Your task to perform on an android device: check android version Image 0: 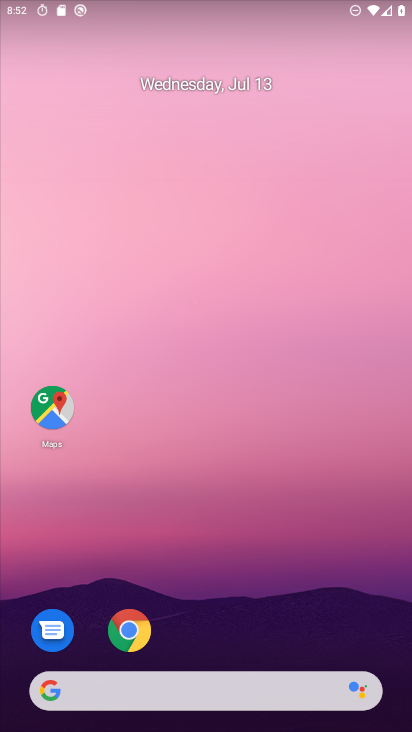
Step 0: drag from (360, 641) to (181, 8)
Your task to perform on an android device: check android version Image 1: 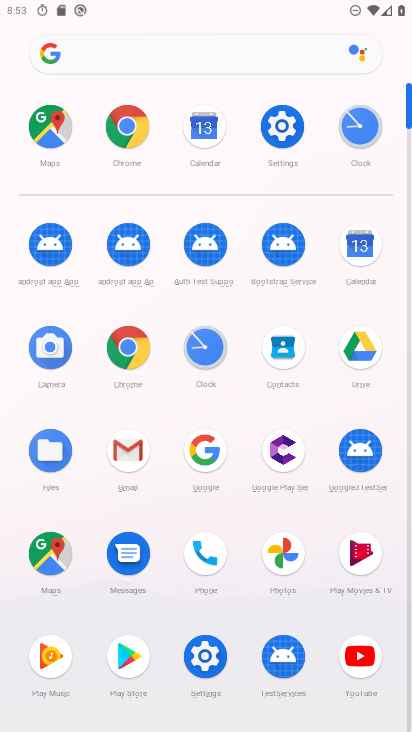
Step 1: click (206, 642)
Your task to perform on an android device: check android version Image 2: 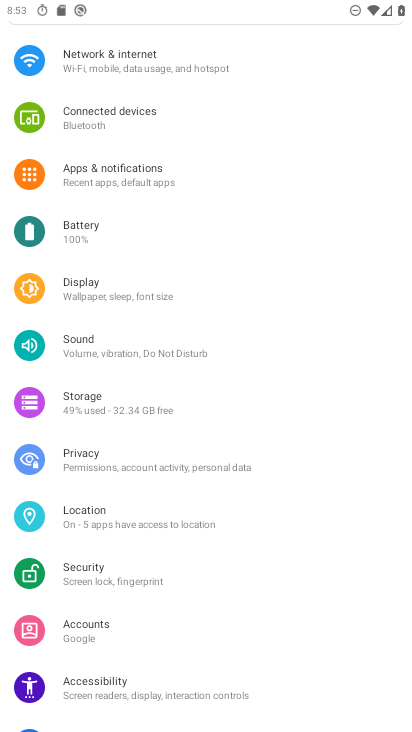
Step 2: drag from (172, 665) to (208, 62)
Your task to perform on an android device: check android version Image 3: 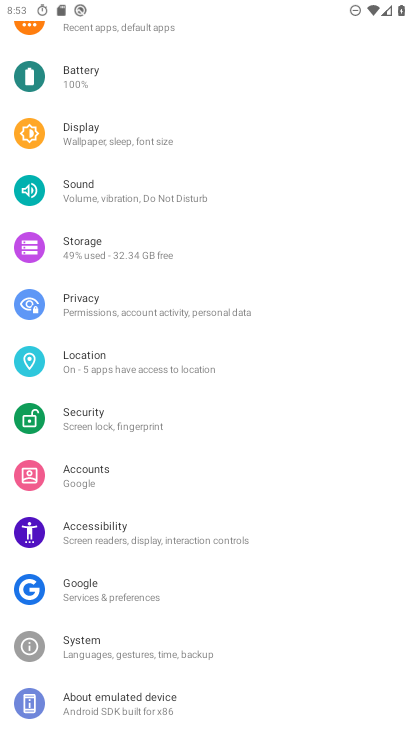
Step 3: click (171, 700)
Your task to perform on an android device: check android version Image 4: 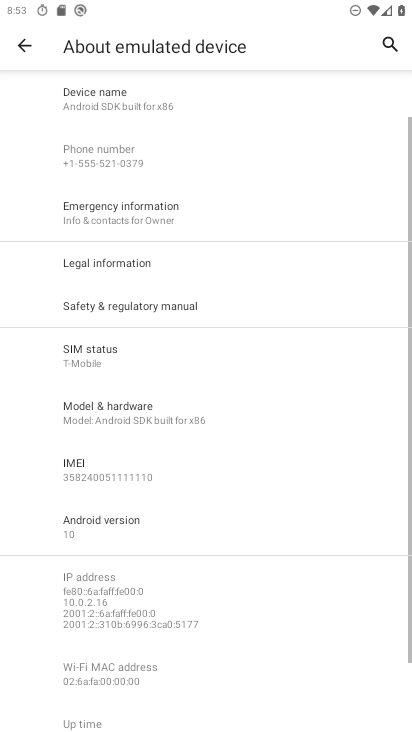
Step 4: click (129, 523)
Your task to perform on an android device: check android version Image 5: 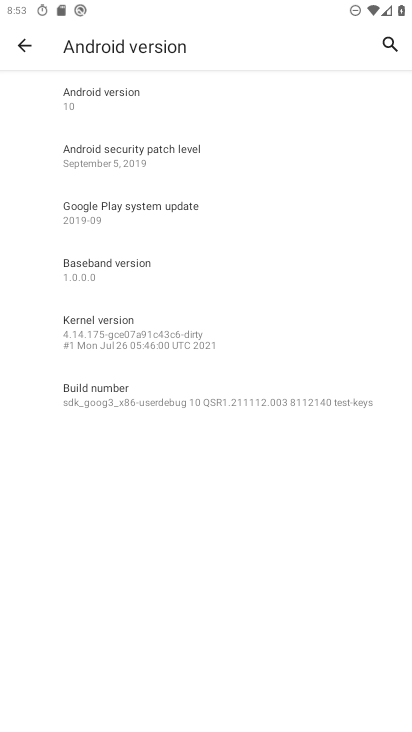
Step 5: task complete